Your task to perform on an android device: turn pop-ups on in chrome Image 0: 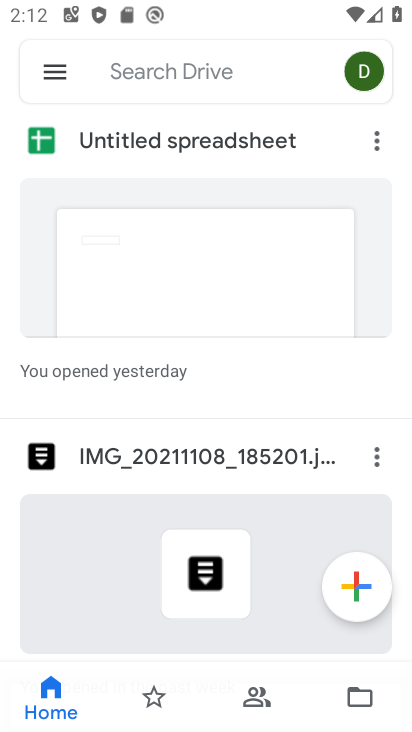
Step 0: press home button
Your task to perform on an android device: turn pop-ups on in chrome Image 1: 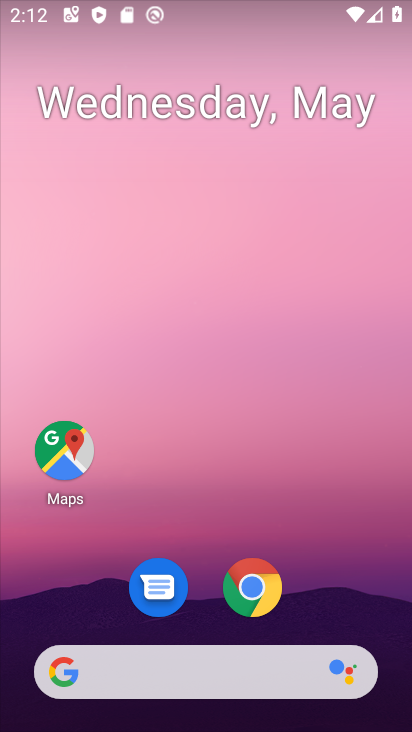
Step 1: drag from (370, 573) to (260, 0)
Your task to perform on an android device: turn pop-ups on in chrome Image 2: 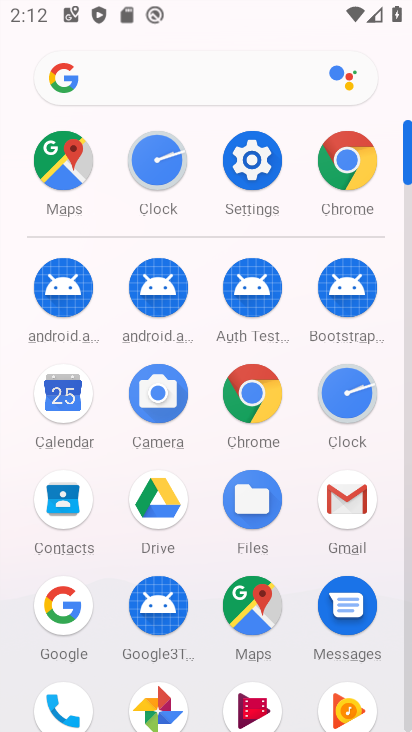
Step 2: click (244, 386)
Your task to perform on an android device: turn pop-ups on in chrome Image 3: 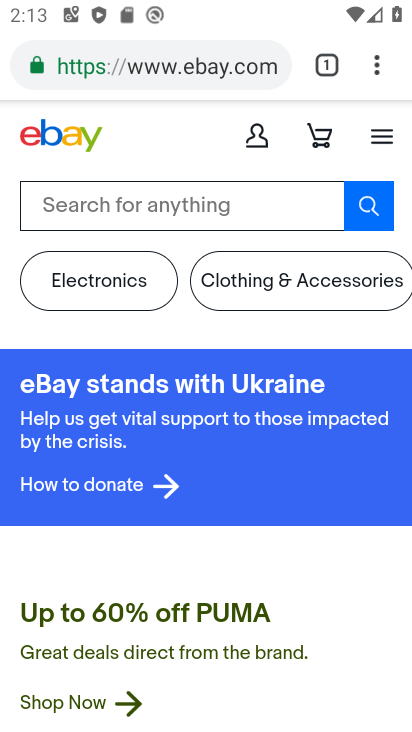
Step 3: click (379, 70)
Your task to perform on an android device: turn pop-ups on in chrome Image 4: 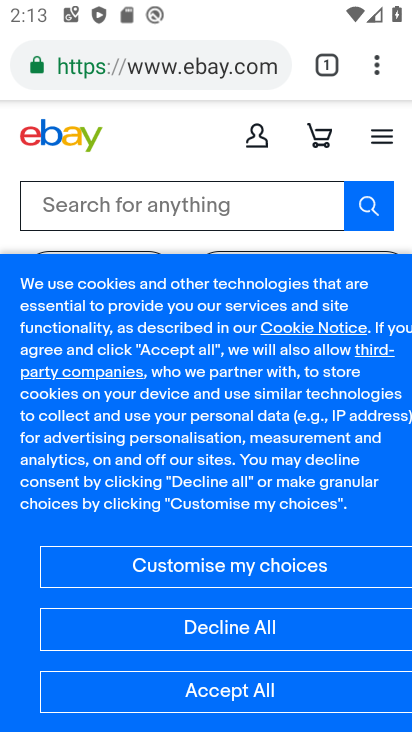
Step 4: click (380, 69)
Your task to perform on an android device: turn pop-ups on in chrome Image 5: 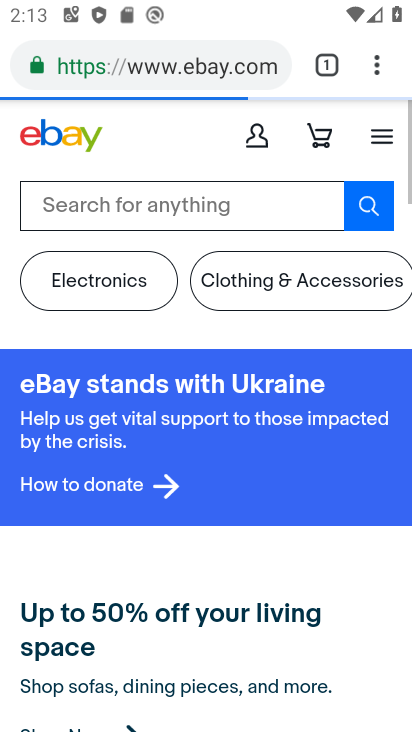
Step 5: click (372, 63)
Your task to perform on an android device: turn pop-ups on in chrome Image 6: 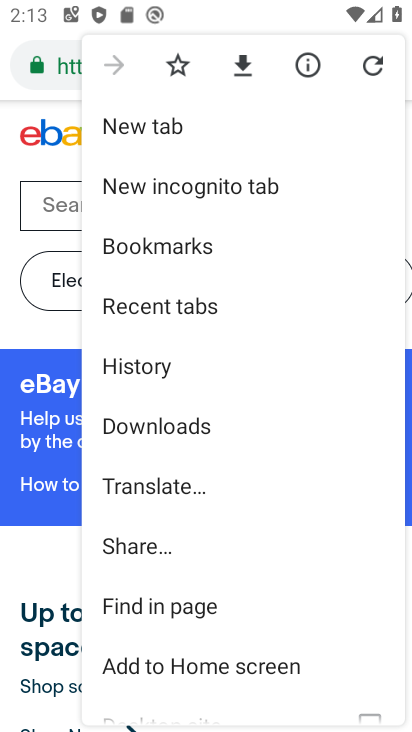
Step 6: drag from (185, 639) to (171, 206)
Your task to perform on an android device: turn pop-ups on in chrome Image 7: 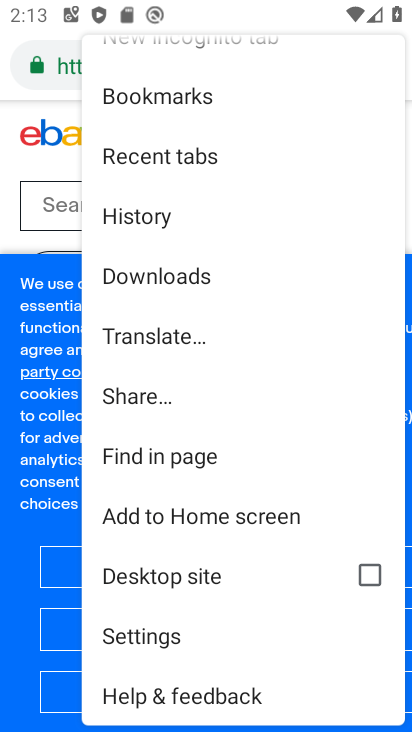
Step 7: click (167, 644)
Your task to perform on an android device: turn pop-ups on in chrome Image 8: 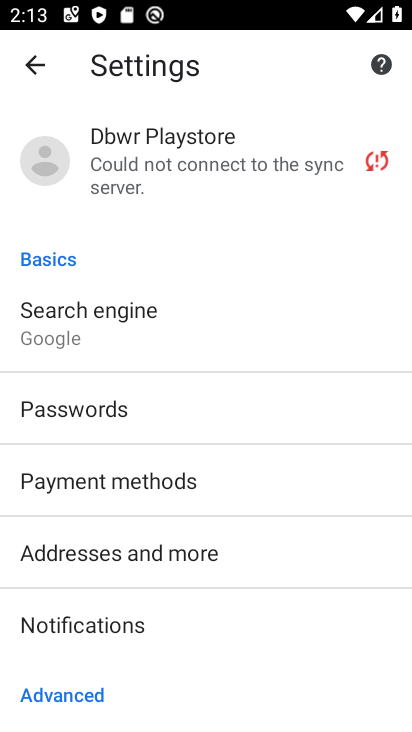
Step 8: drag from (204, 666) to (152, 269)
Your task to perform on an android device: turn pop-ups on in chrome Image 9: 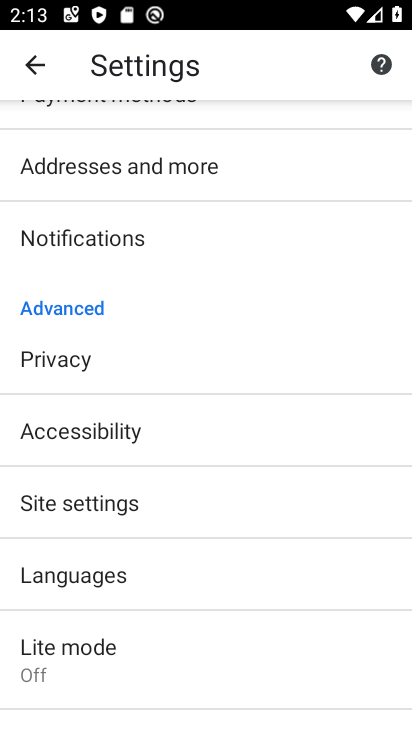
Step 9: drag from (107, 658) to (123, 411)
Your task to perform on an android device: turn pop-ups on in chrome Image 10: 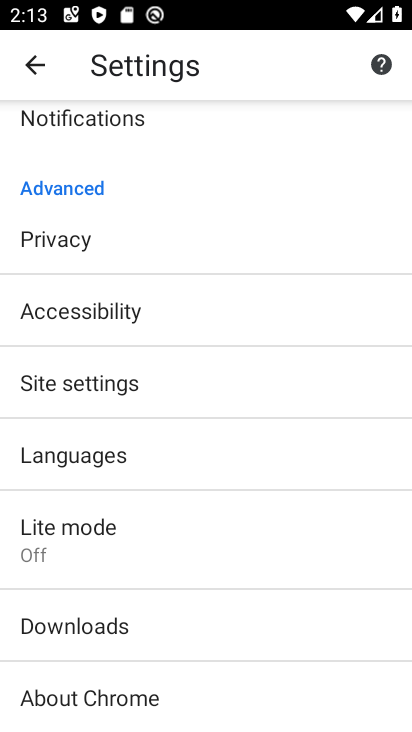
Step 10: click (129, 388)
Your task to perform on an android device: turn pop-ups on in chrome Image 11: 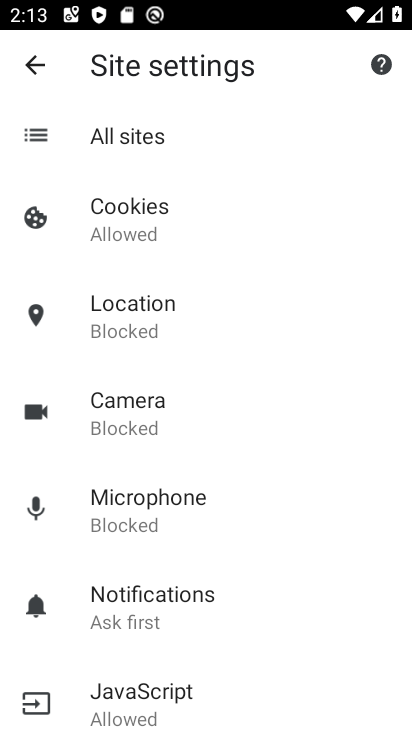
Step 11: drag from (209, 680) to (165, 305)
Your task to perform on an android device: turn pop-ups on in chrome Image 12: 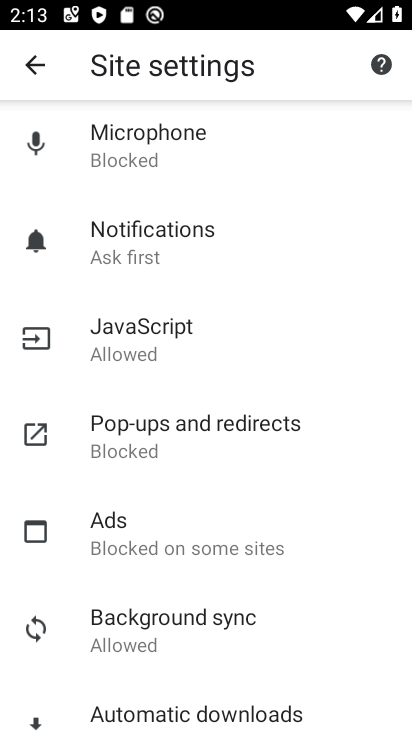
Step 12: click (173, 435)
Your task to perform on an android device: turn pop-ups on in chrome Image 13: 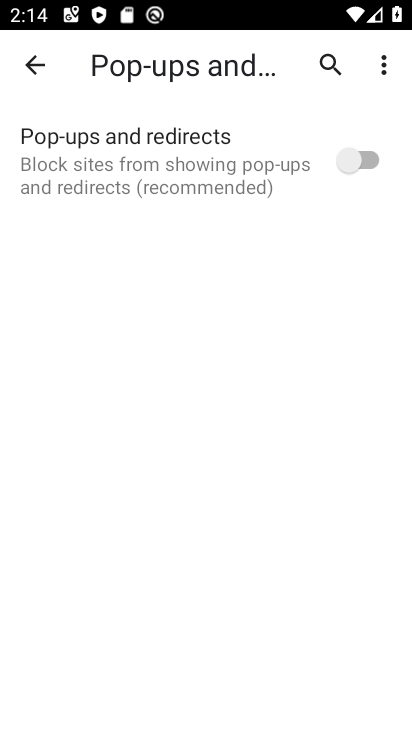
Step 13: click (358, 161)
Your task to perform on an android device: turn pop-ups on in chrome Image 14: 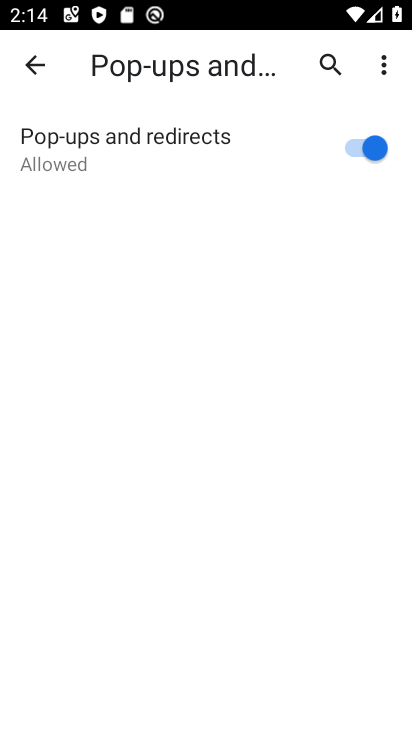
Step 14: task complete